Your task to perform on an android device: Show me popular videos on Youtube Image 0: 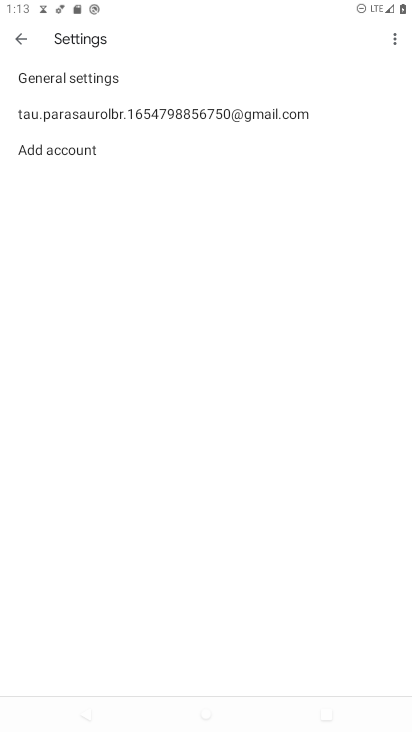
Step 0: press home button
Your task to perform on an android device: Show me popular videos on Youtube Image 1: 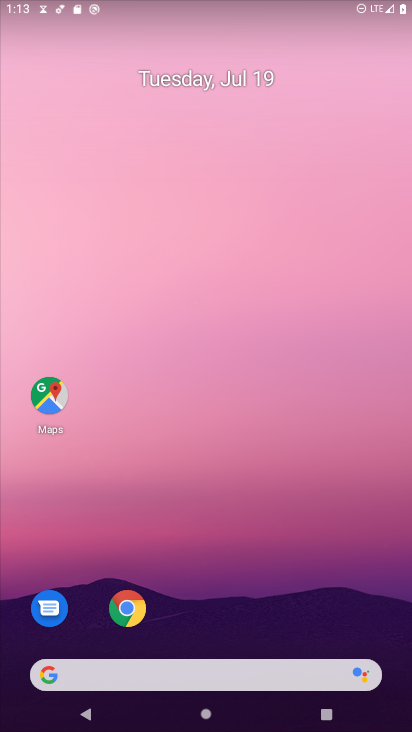
Step 1: drag from (240, 638) to (296, 83)
Your task to perform on an android device: Show me popular videos on Youtube Image 2: 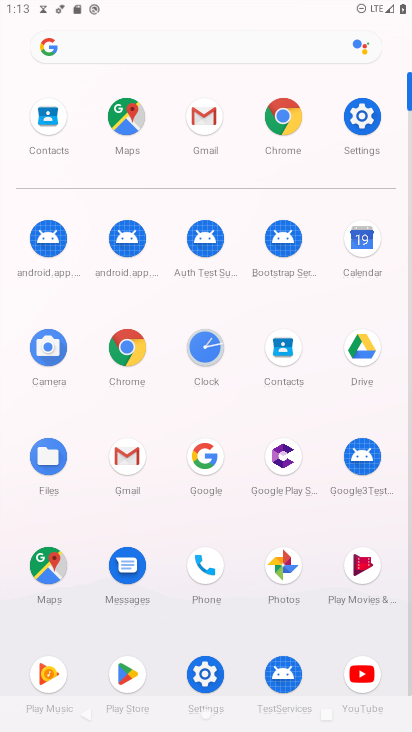
Step 2: click (363, 683)
Your task to perform on an android device: Show me popular videos on Youtube Image 3: 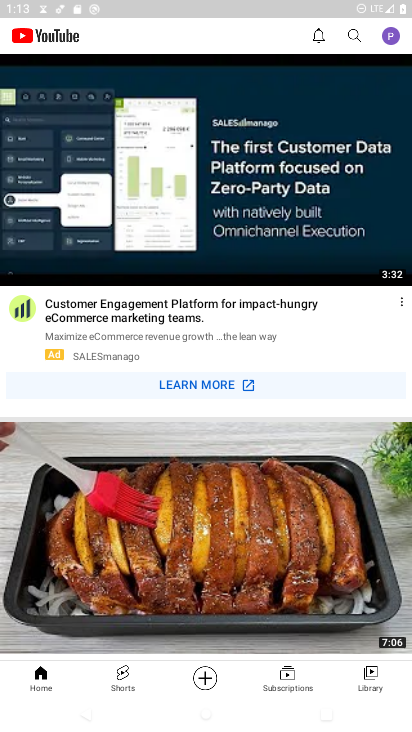
Step 3: task complete